Your task to perform on an android device: Go to internet settings Image 0: 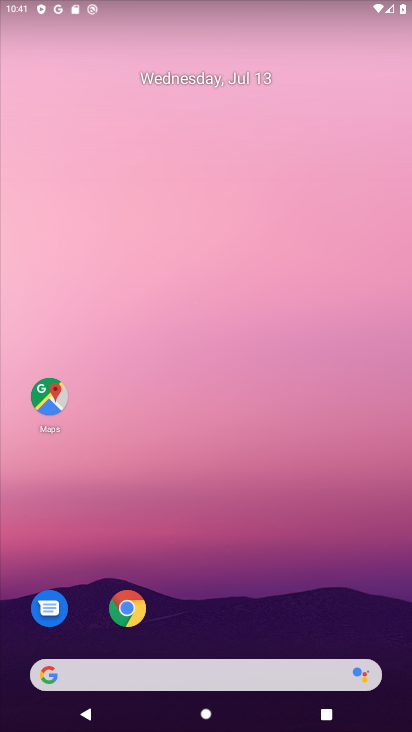
Step 0: drag from (272, 586) to (325, 122)
Your task to perform on an android device: Go to internet settings Image 1: 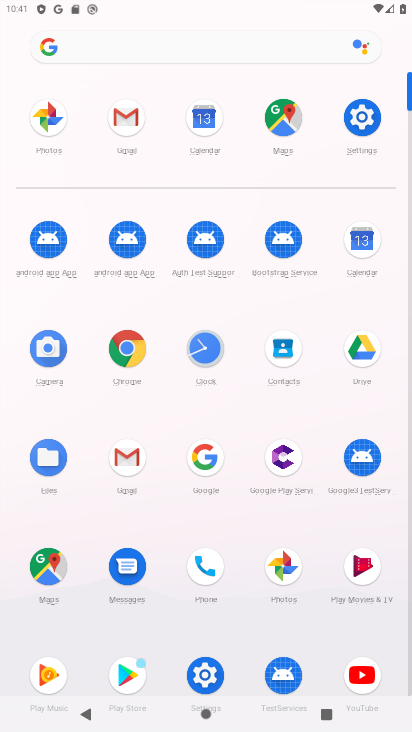
Step 1: click (366, 119)
Your task to perform on an android device: Go to internet settings Image 2: 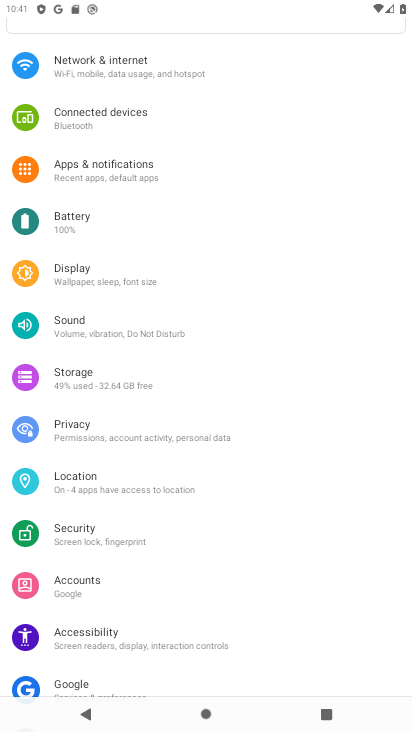
Step 2: click (169, 74)
Your task to perform on an android device: Go to internet settings Image 3: 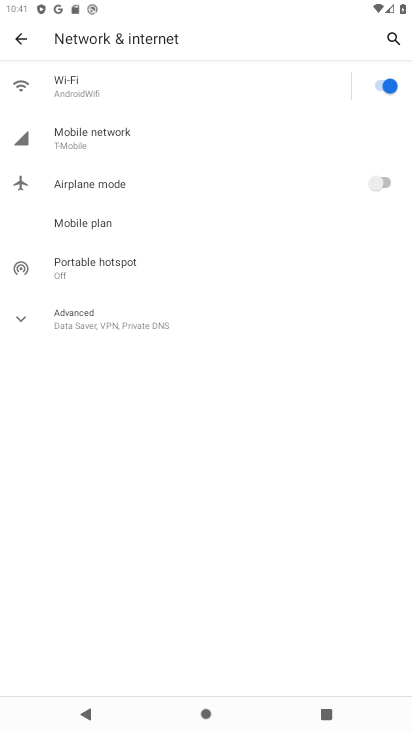
Step 3: click (107, 126)
Your task to perform on an android device: Go to internet settings Image 4: 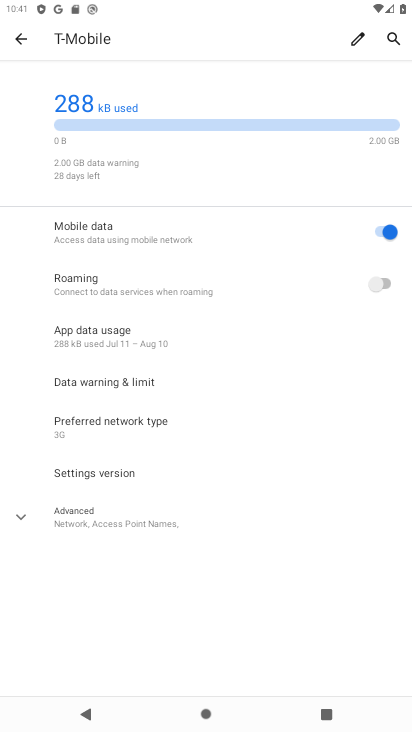
Step 4: task complete